Your task to perform on an android device: find snoozed emails in the gmail app Image 0: 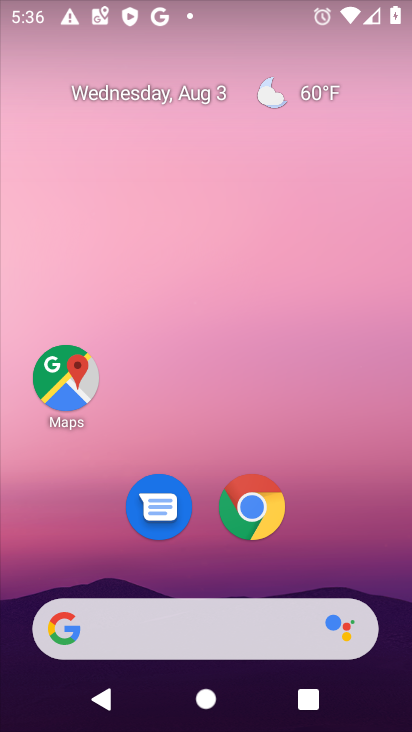
Step 0: drag from (326, 510) to (269, 18)
Your task to perform on an android device: find snoozed emails in the gmail app Image 1: 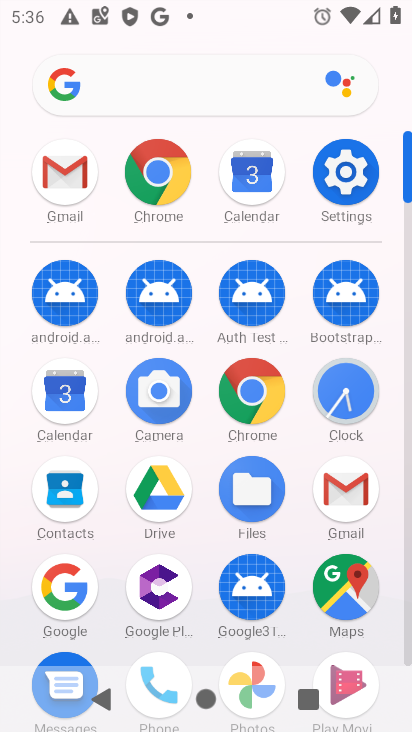
Step 1: click (351, 481)
Your task to perform on an android device: find snoozed emails in the gmail app Image 2: 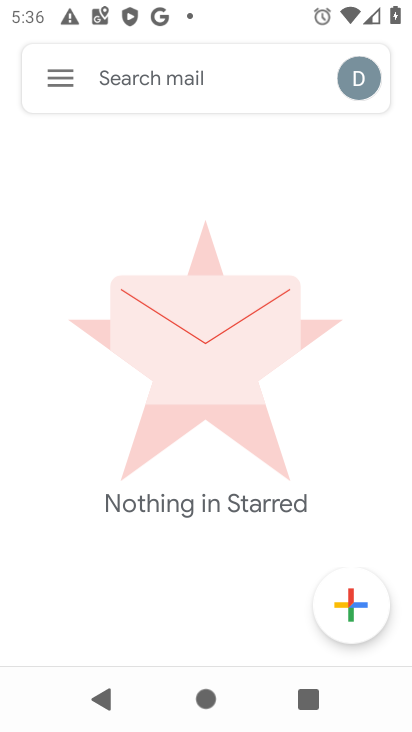
Step 2: click (51, 70)
Your task to perform on an android device: find snoozed emails in the gmail app Image 3: 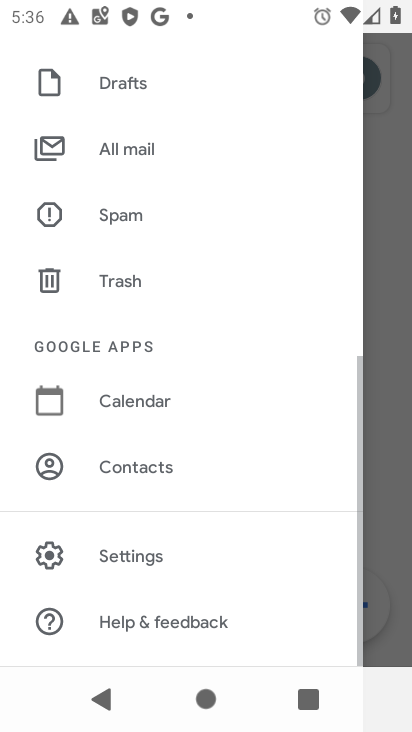
Step 3: drag from (205, 207) to (181, 698)
Your task to perform on an android device: find snoozed emails in the gmail app Image 4: 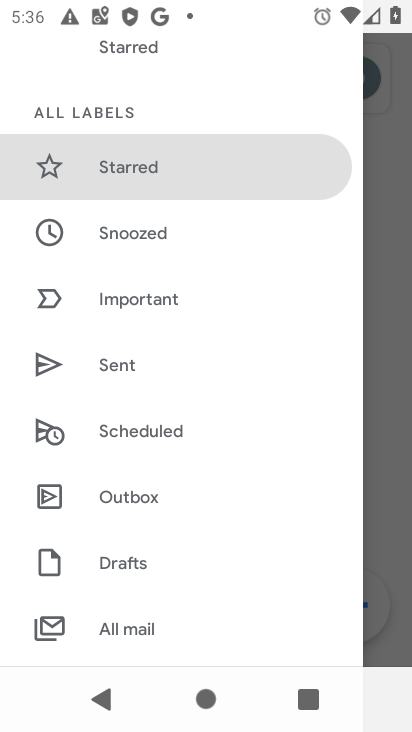
Step 4: click (127, 233)
Your task to perform on an android device: find snoozed emails in the gmail app Image 5: 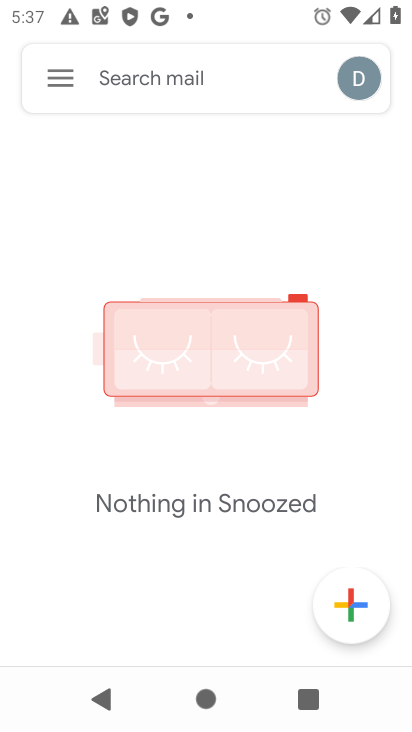
Step 5: task complete